Your task to perform on an android device: turn off data saver in the chrome app Image 0: 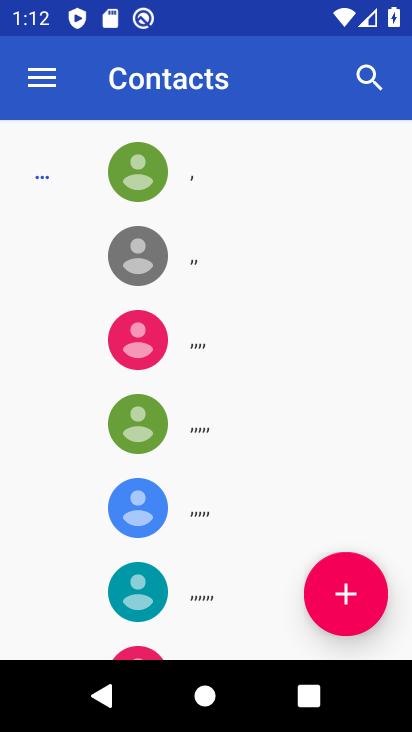
Step 0: press home button
Your task to perform on an android device: turn off data saver in the chrome app Image 1: 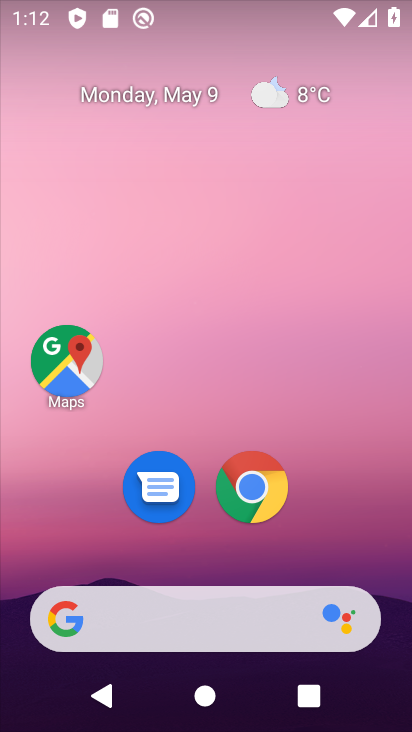
Step 1: click (268, 489)
Your task to perform on an android device: turn off data saver in the chrome app Image 2: 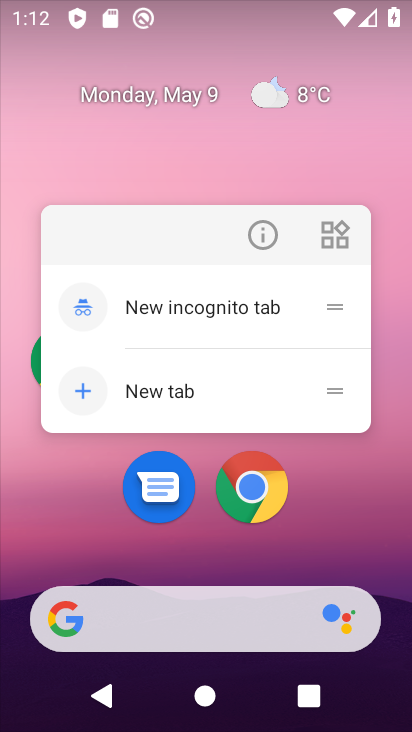
Step 2: click (260, 466)
Your task to perform on an android device: turn off data saver in the chrome app Image 3: 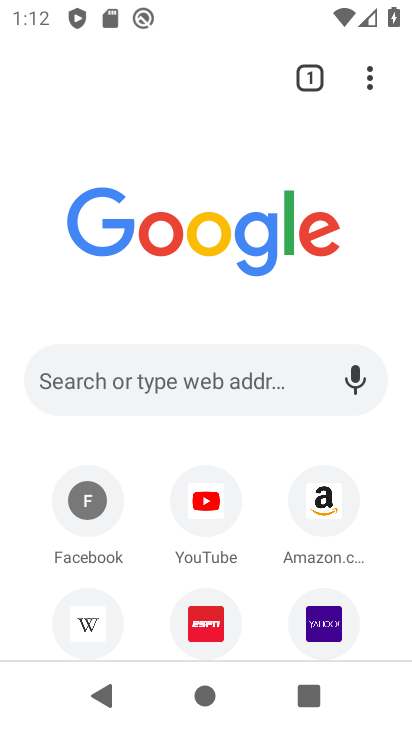
Step 3: click (369, 66)
Your task to perform on an android device: turn off data saver in the chrome app Image 4: 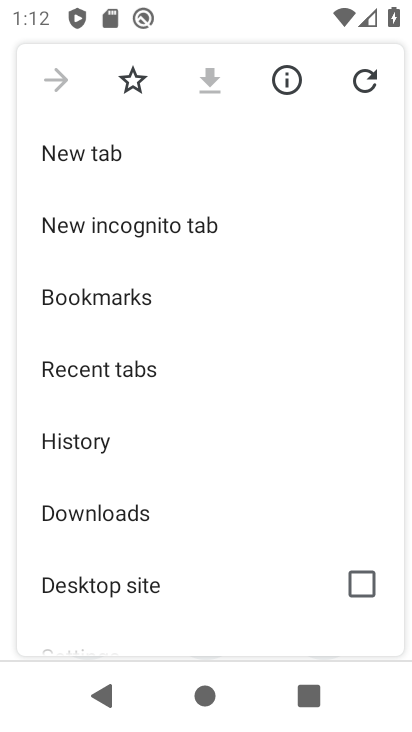
Step 4: drag from (217, 579) to (187, 209)
Your task to perform on an android device: turn off data saver in the chrome app Image 5: 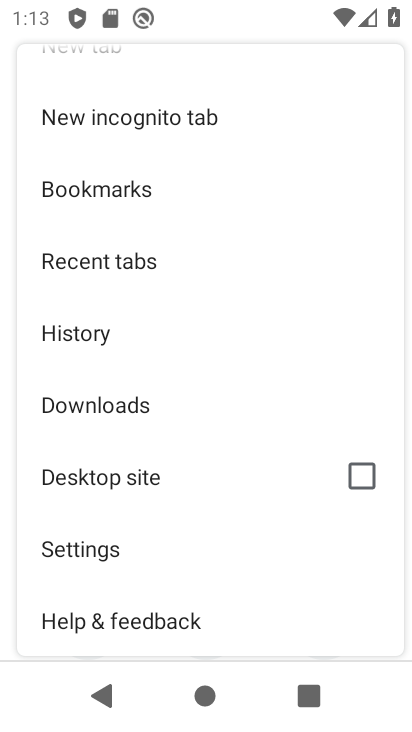
Step 5: drag from (173, 583) to (176, 240)
Your task to perform on an android device: turn off data saver in the chrome app Image 6: 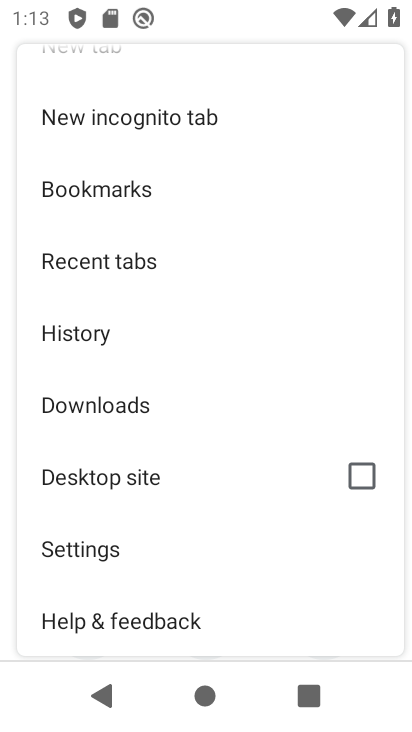
Step 6: click (159, 547)
Your task to perform on an android device: turn off data saver in the chrome app Image 7: 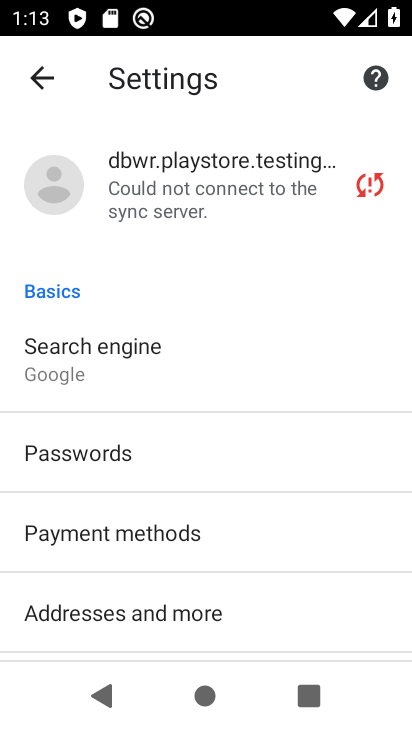
Step 7: drag from (207, 590) to (187, 206)
Your task to perform on an android device: turn off data saver in the chrome app Image 8: 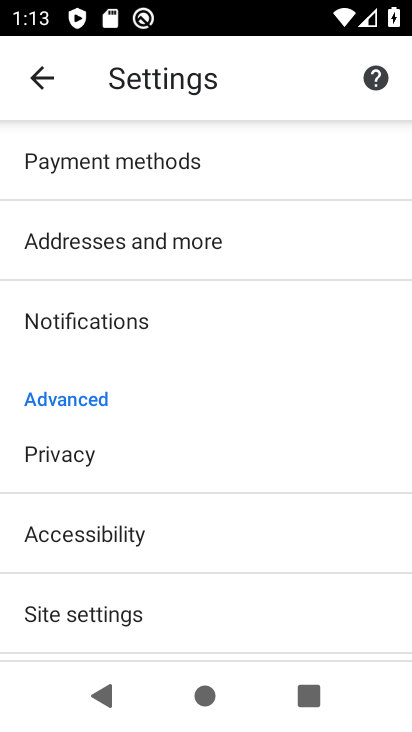
Step 8: drag from (173, 577) to (156, 262)
Your task to perform on an android device: turn off data saver in the chrome app Image 9: 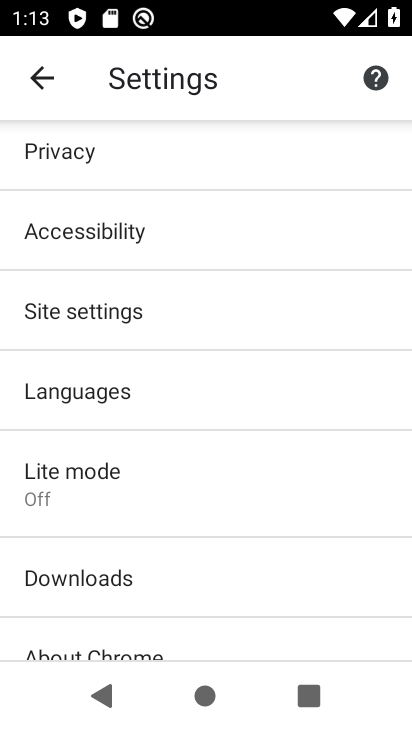
Step 9: click (81, 464)
Your task to perform on an android device: turn off data saver in the chrome app Image 10: 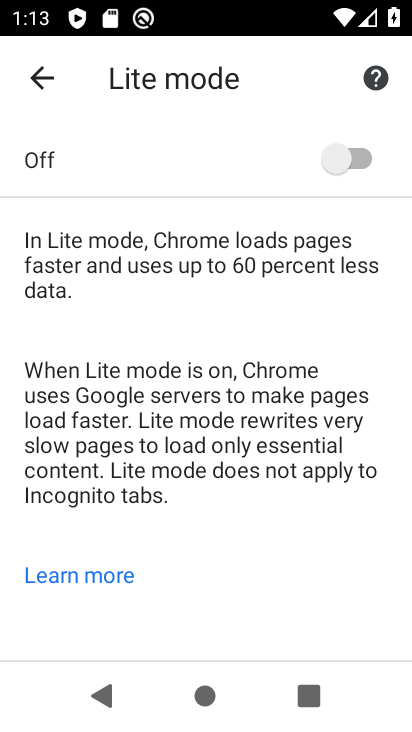
Step 10: task complete